Your task to perform on an android device: What is the news today? Image 0: 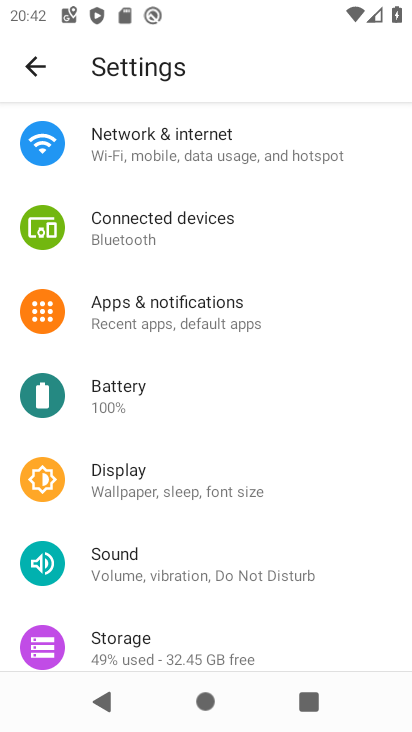
Step 0: press home button
Your task to perform on an android device: What is the news today? Image 1: 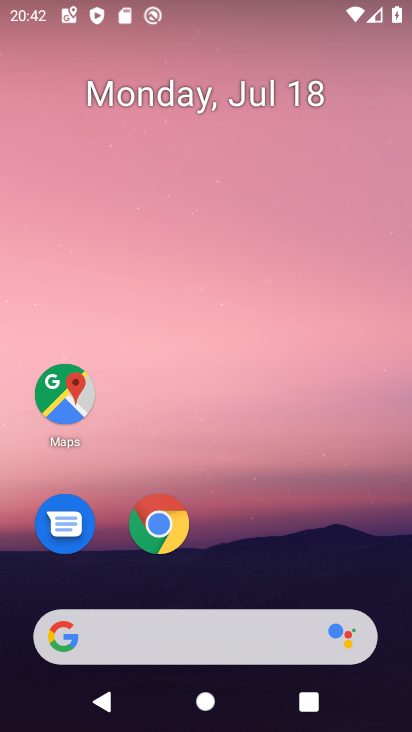
Step 1: click (254, 649)
Your task to perform on an android device: What is the news today? Image 2: 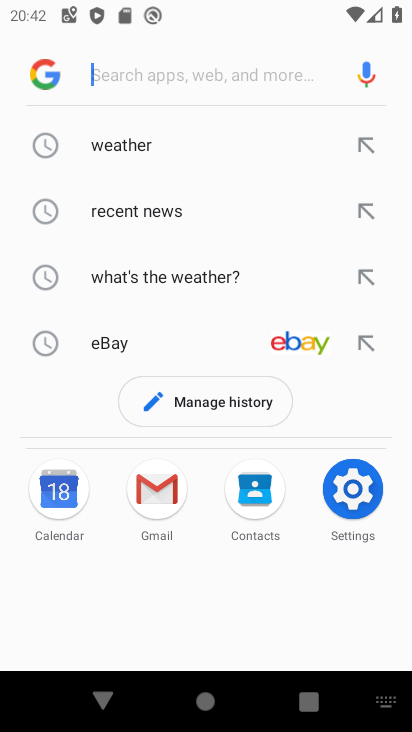
Step 2: click (137, 203)
Your task to perform on an android device: What is the news today? Image 3: 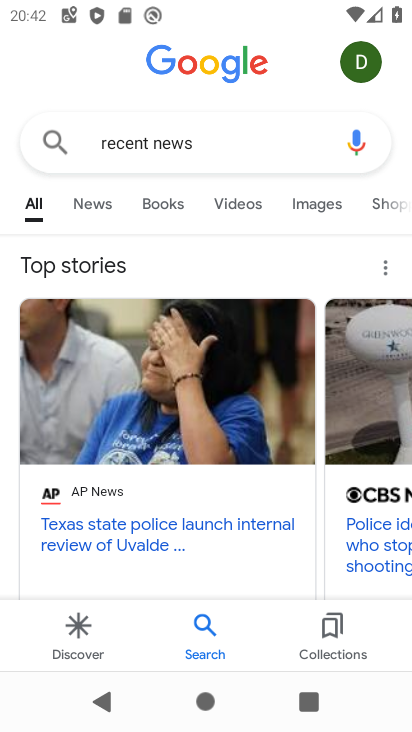
Step 3: task complete